Your task to perform on an android device: open wifi settings Image 0: 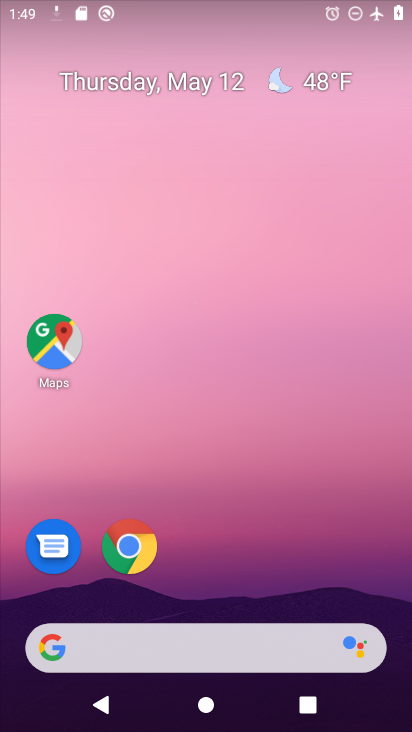
Step 0: drag from (217, 654) to (369, 65)
Your task to perform on an android device: open wifi settings Image 1: 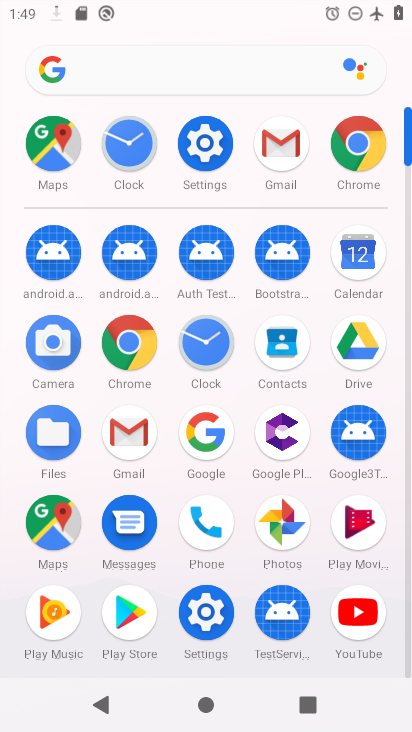
Step 1: click (212, 132)
Your task to perform on an android device: open wifi settings Image 2: 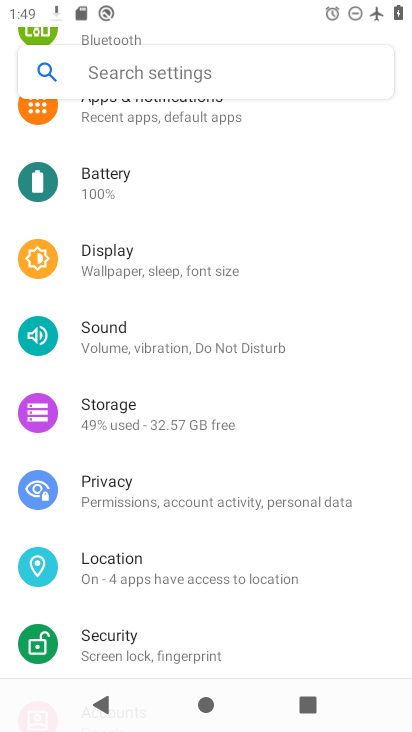
Step 2: drag from (255, 161) to (153, 465)
Your task to perform on an android device: open wifi settings Image 3: 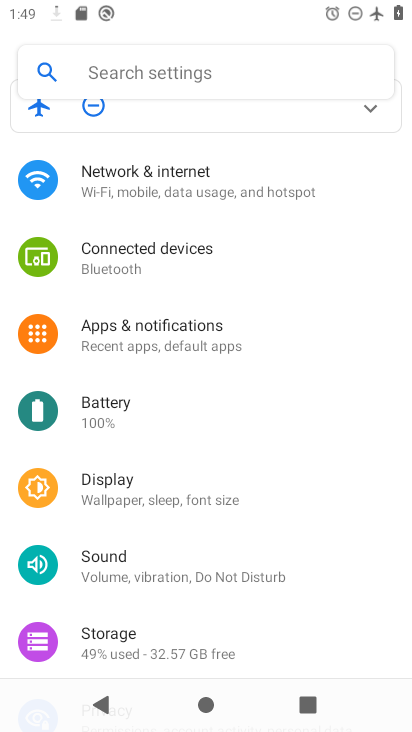
Step 3: click (172, 187)
Your task to perform on an android device: open wifi settings Image 4: 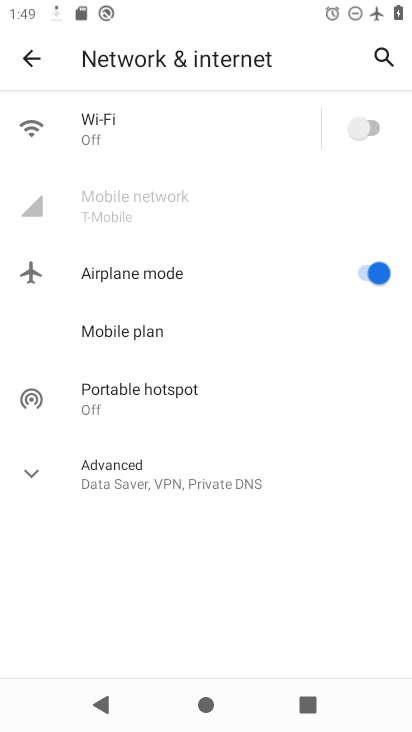
Step 4: click (106, 132)
Your task to perform on an android device: open wifi settings Image 5: 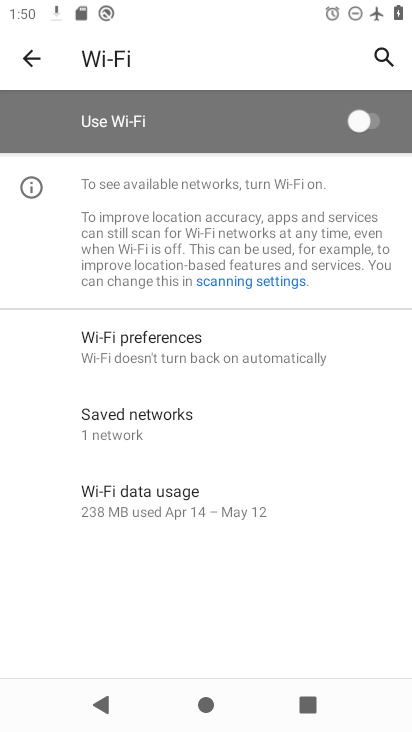
Step 5: task complete